Your task to perform on an android device: find photos in the google photos app Image 0: 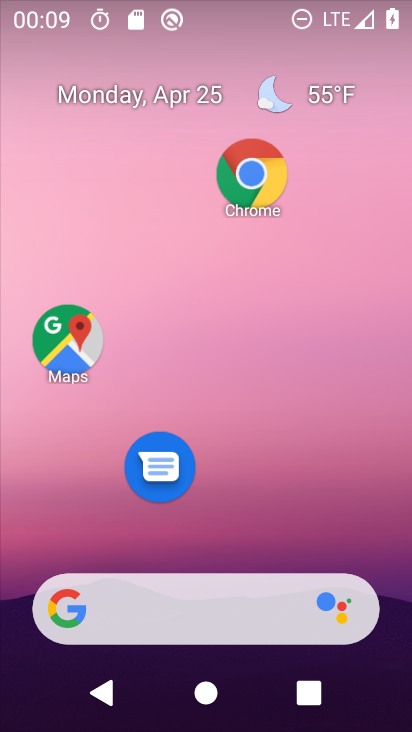
Step 0: drag from (274, 507) to (274, 82)
Your task to perform on an android device: find photos in the google photos app Image 1: 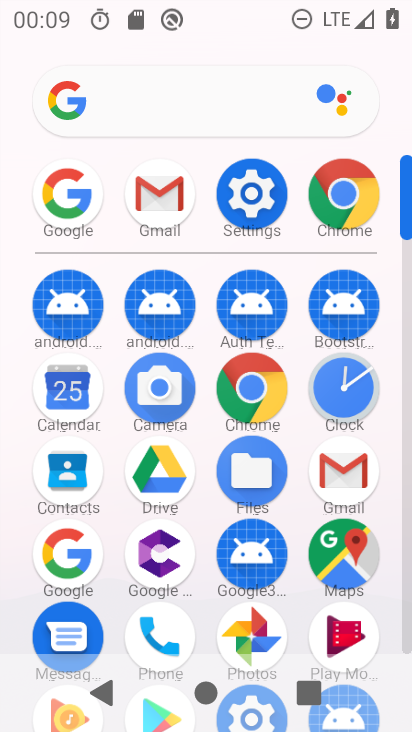
Step 1: drag from (205, 525) to (201, 357)
Your task to perform on an android device: find photos in the google photos app Image 2: 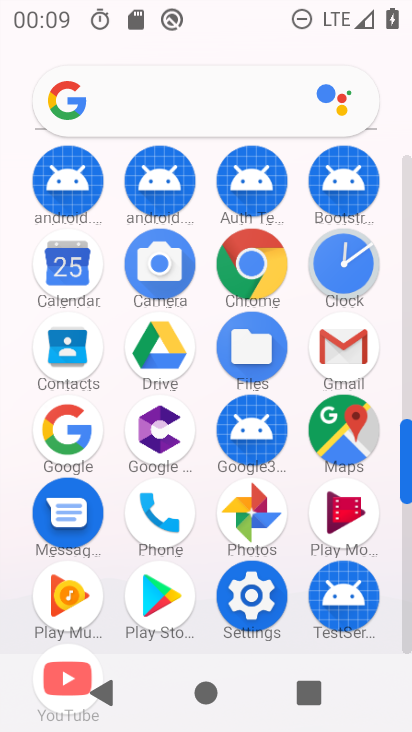
Step 2: click (254, 513)
Your task to perform on an android device: find photos in the google photos app Image 3: 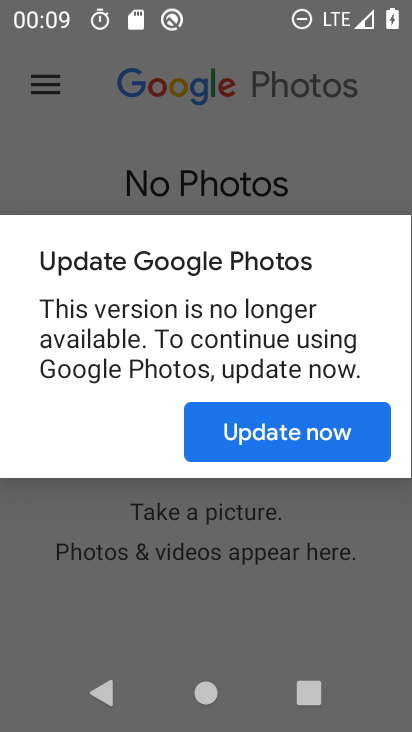
Step 3: click (296, 429)
Your task to perform on an android device: find photos in the google photos app Image 4: 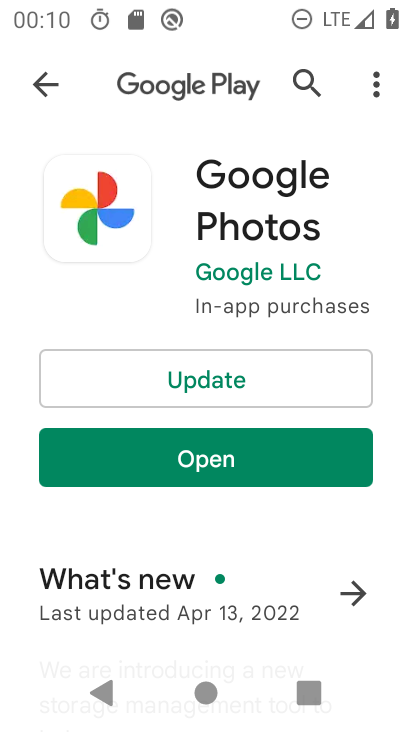
Step 4: click (207, 457)
Your task to perform on an android device: find photos in the google photos app Image 5: 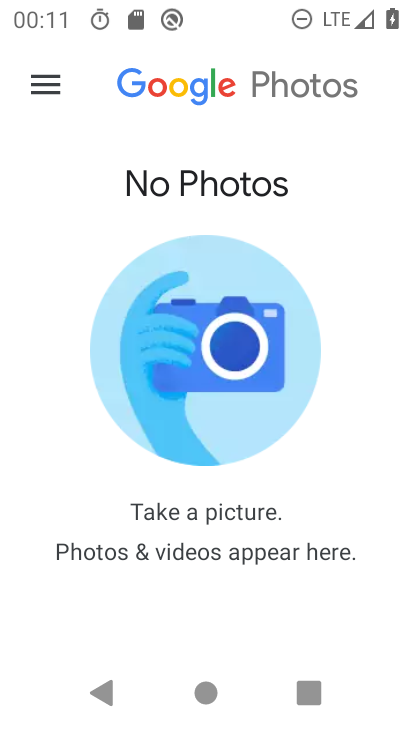
Step 5: task complete